Your task to perform on an android device: turn on data saver in the chrome app Image 0: 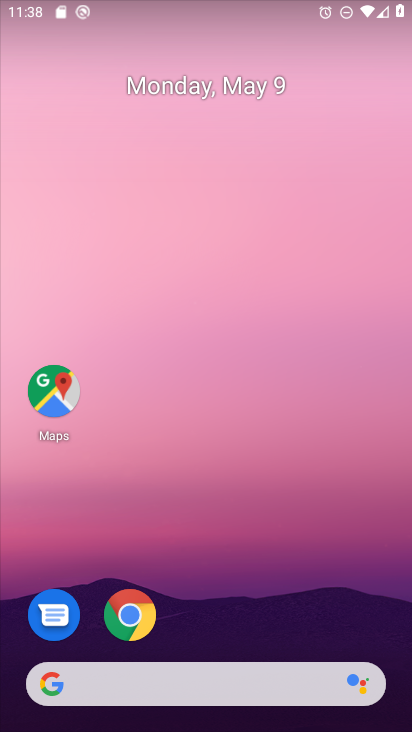
Step 0: drag from (246, 710) to (263, 272)
Your task to perform on an android device: turn on data saver in the chrome app Image 1: 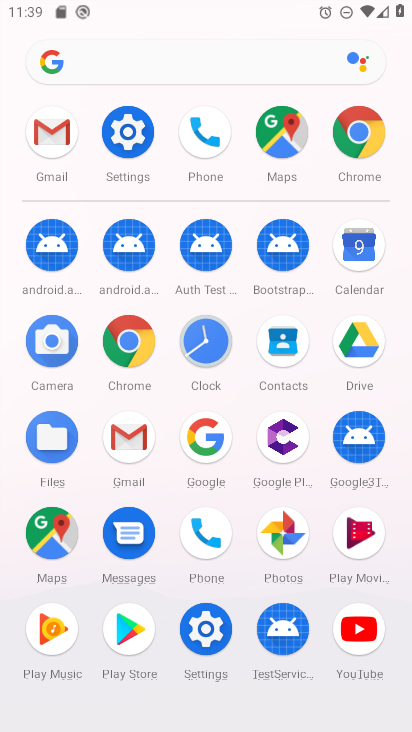
Step 1: click (370, 135)
Your task to perform on an android device: turn on data saver in the chrome app Image 2: 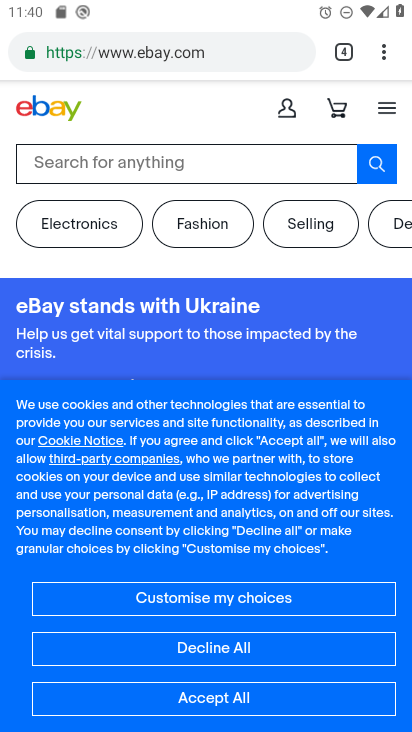
Step 2: click (380, 51)
Your task to perform on an android device: turn on data saver in the chrome app Image 3: 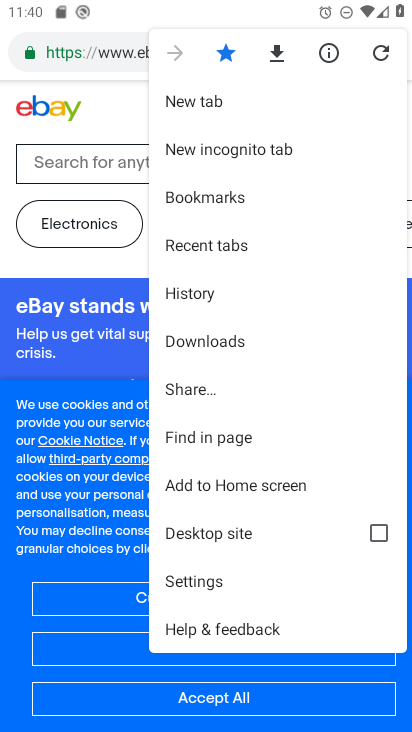
Step 3: click (227, 582)
Your task to perform on an android device: turn on data saver in the chrome app Image 4: 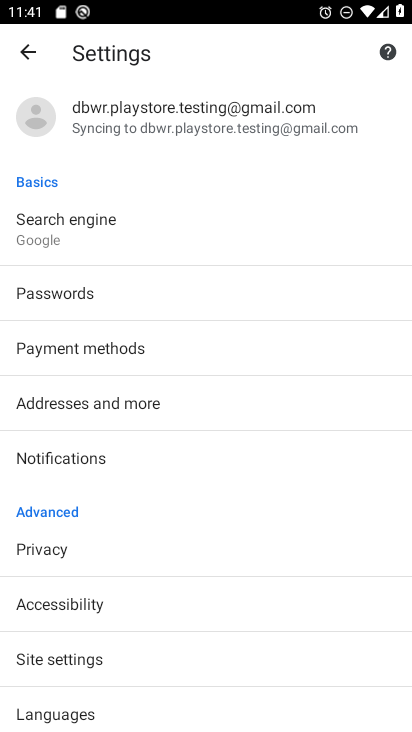
Step 4: drag from (98, 672) to (175, 490)
Your task to perform on an android device: turn on data saver in the chrome app Image 5: 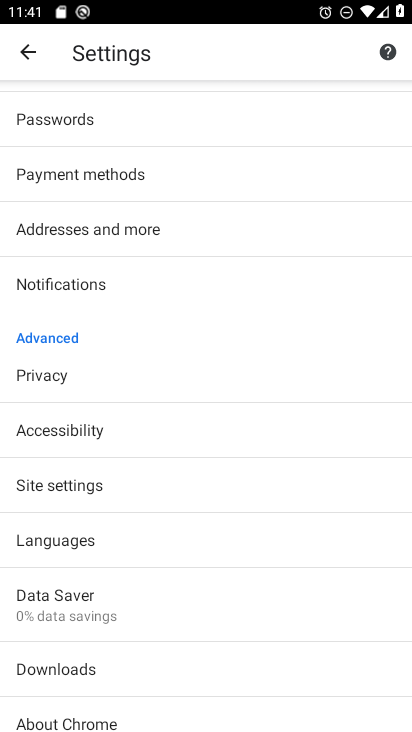
Step 5: click (99, 603)
Your task to perform on an android device: turn on data saver in the chrome app Image 6: 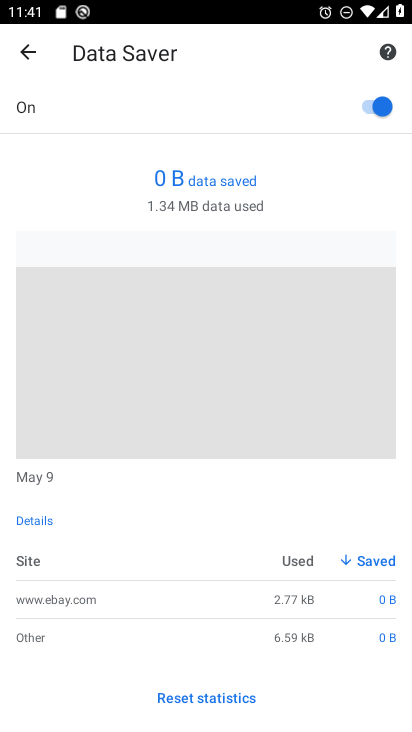
Step 6: task complete